Your task to perform on an android device: Open CNN.com Image 0: 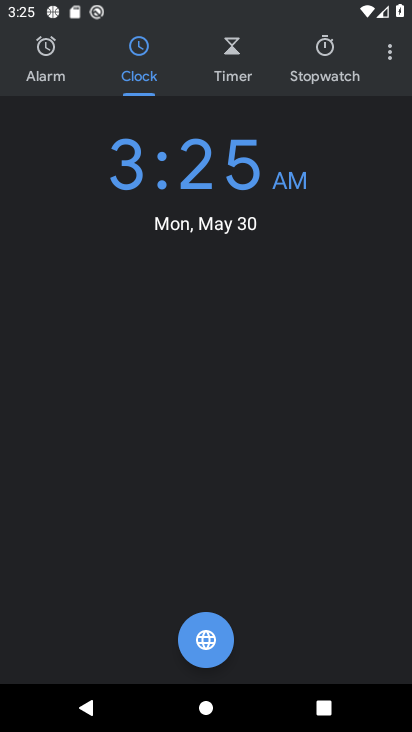
Step 0: drag from (205, 650) to (274, 34)
Your task to perform on an android device: Open CNN.com Image 1: 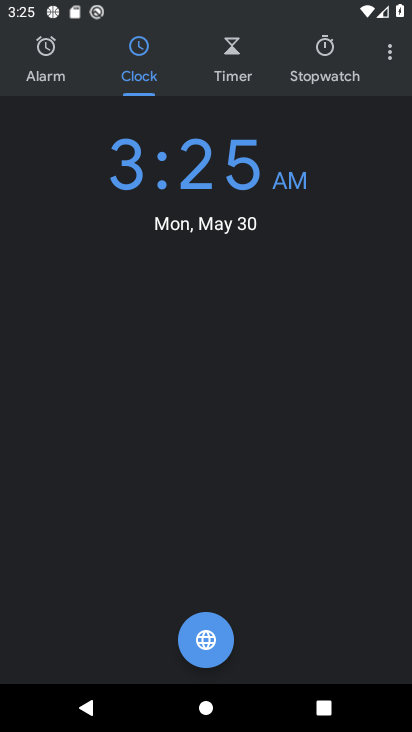
Step 1: press home button
Your task to perform on an android device: Open CNN.com Image 2: 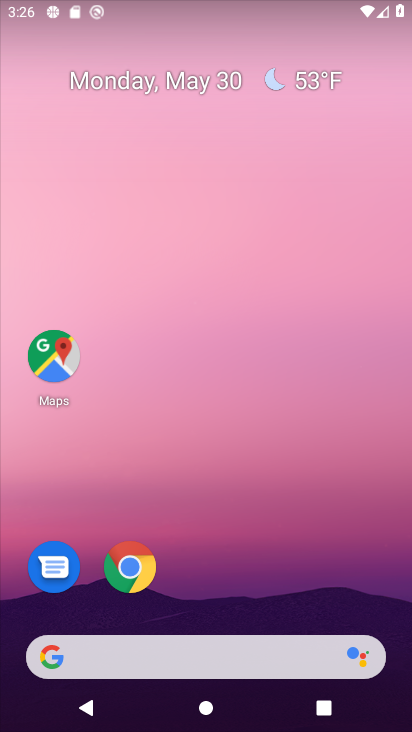
Step 2: drag from (228, 694) to (290, 1)
Your task to perform on an android device: Open CNN.com Image 3: 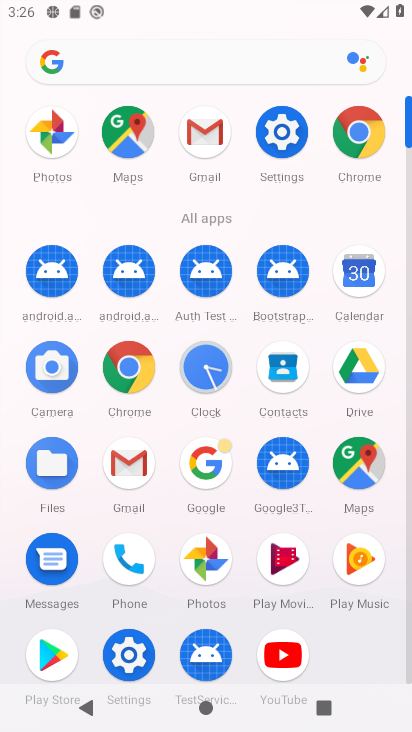
Step 3: click (122, 377)
Your task to perform on an android device: Open CNN.com Image 4: 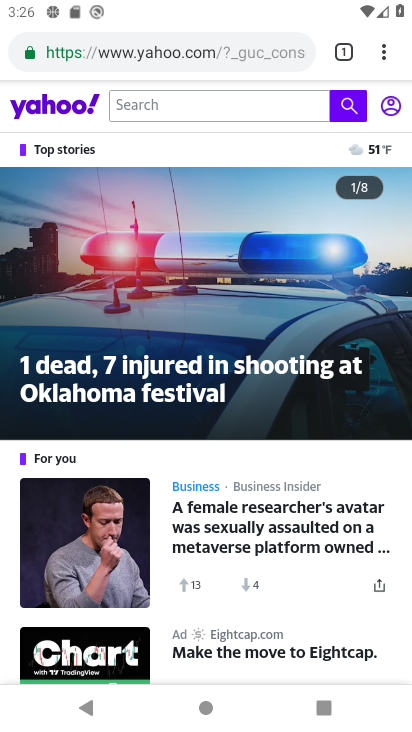
Step 4: click (243, 62)
Your task to perform on an android device: Open CNN.com Image 5: 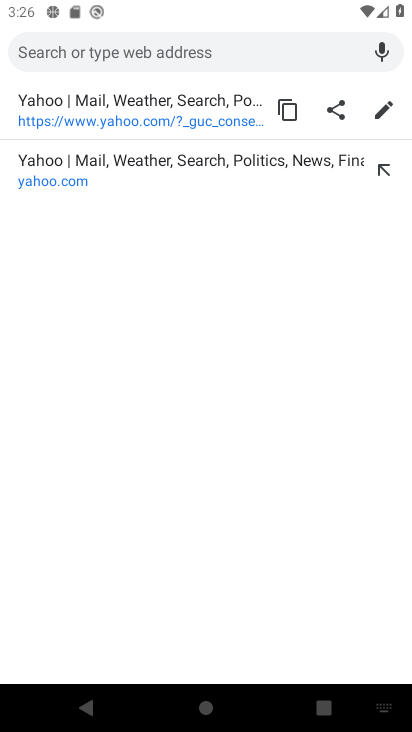
Step 5: type "cnn.com"
Your task to perform on an android device: Open CNN.com Image 6: 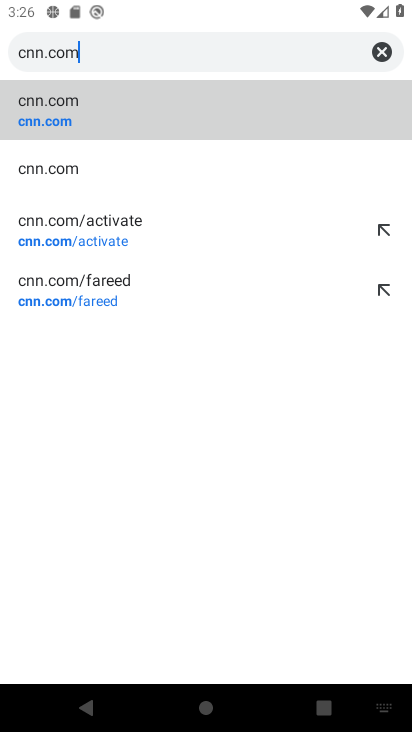
Step 6: click (57, 86)
Your task to perform on an android device: Open CNN.com Image 7: 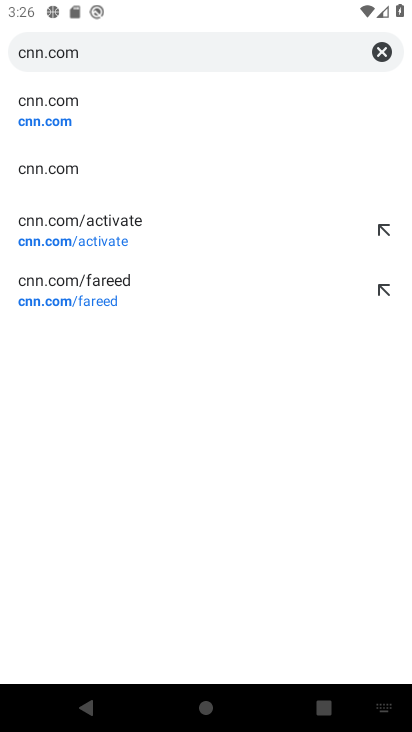
Step 7: task complete